Your task to perform on an android device: turn vacation reply on in the gmail app Image 0: 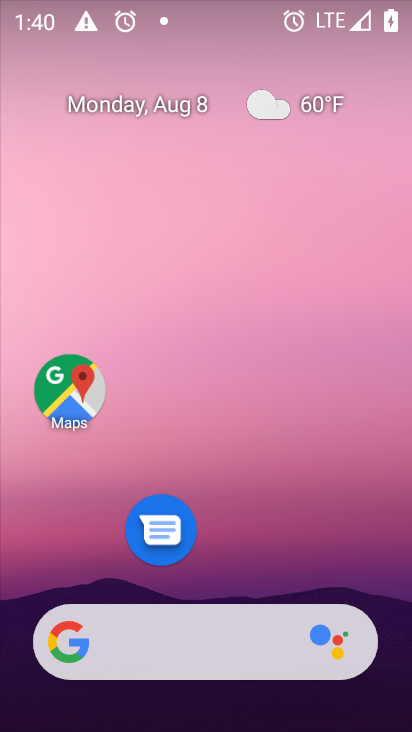
Step 0: drag from (225, 576) to (199, 200)
Your task to perform on an android device: turn vacation reply on in the gmail app Image 1: 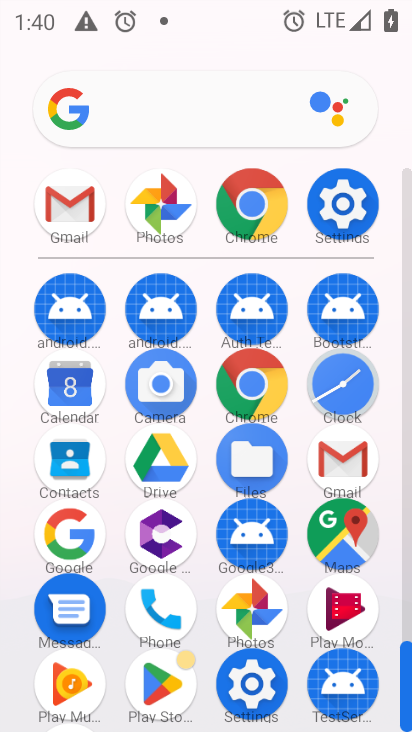
Step 1: click (350, 463)
Your task to perform on an android device: turn vacation reply on in the gmail app Image 2: 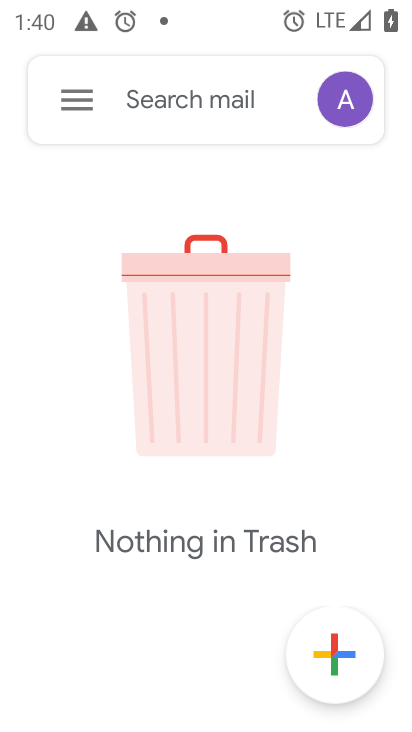
Step 2: click (77, 95)
Your task to perform on an android device: turn vacation reply on in the gmail app Image 3: 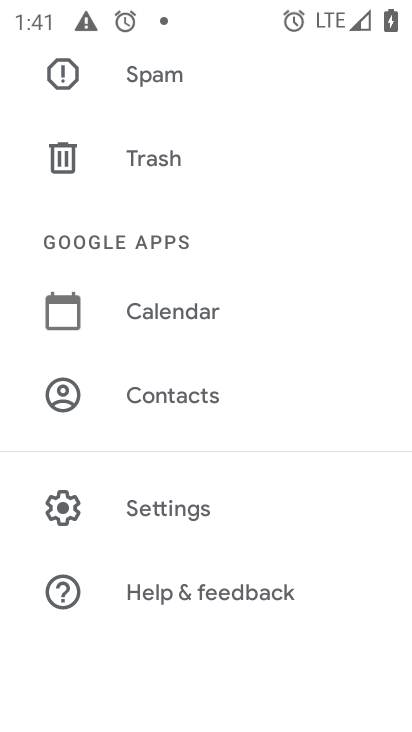
Step 3: click (167, 504)
Your task to perform on an android device: turn vacation reply on in the gmail app Image 4: 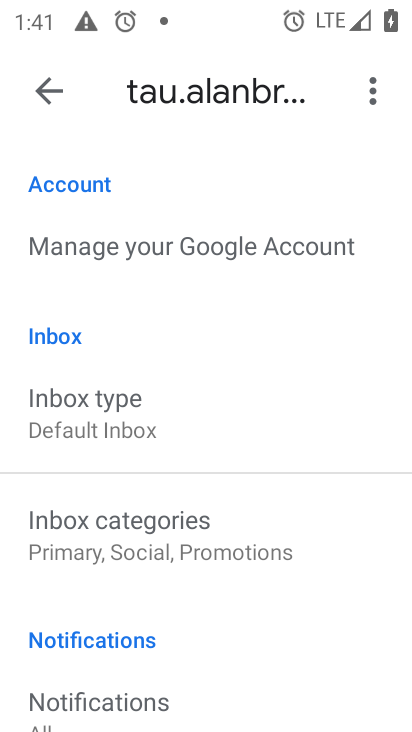
Step 4: drag from (177, 604) to (162, 282)
Your task to perform on an android device: turn vacation reply on in the gmail app Image 5: 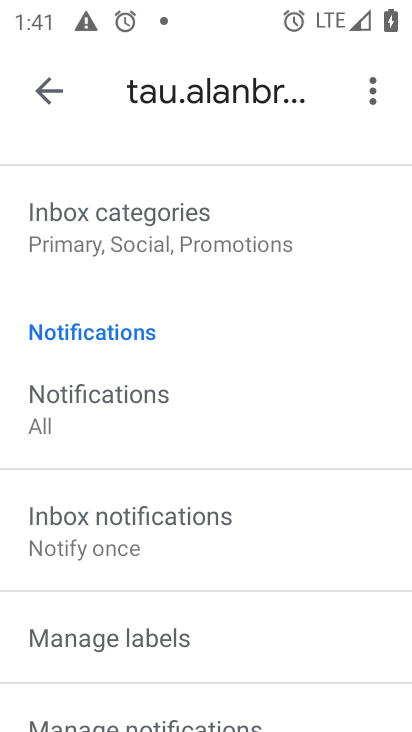
Step 5: drag from (154, 660) to (136, 238)
Your task to perform on an android device: turn vacation reply on in the gmail app Image 6: 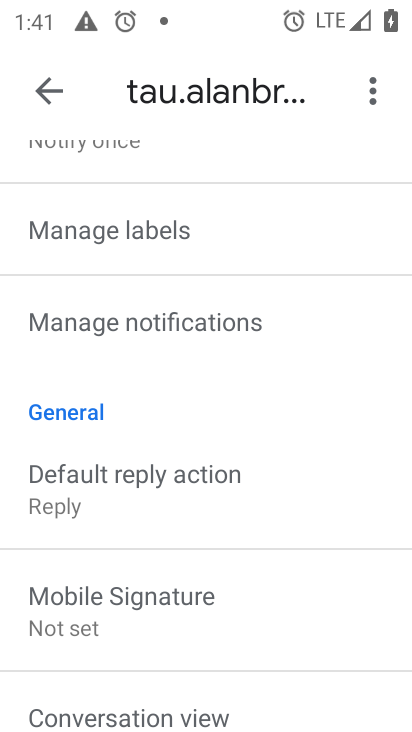
Step 6: drag from (153, 617) to (153, 346)
Your task to perform on an android device: turn vacation reply on in the gmail app Image 7: 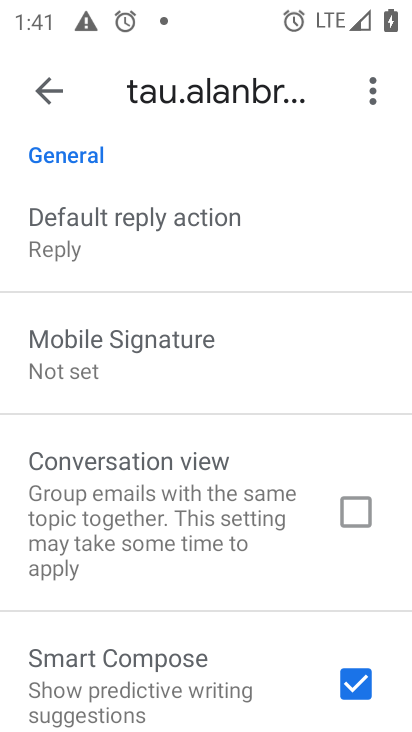
Step 7: drag from (186, 677) to (181, 347)
Your task to perform on an android device: turn vacation reply on in the gmail app Image 8: 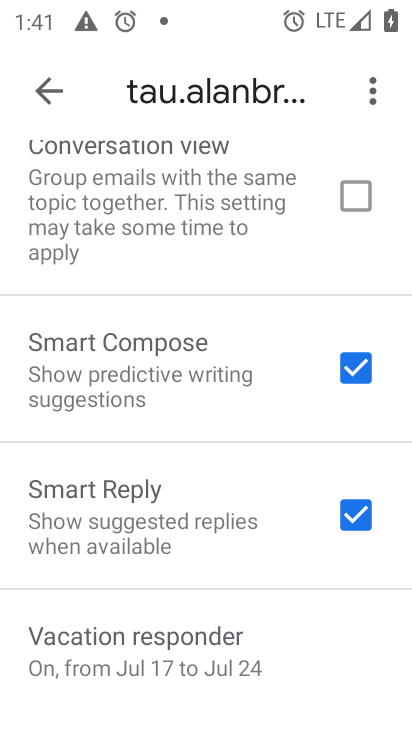
Step 8: click (199, 656)
Your task to perform on an android device: turn vacation reply on in the gmail app Image 9: 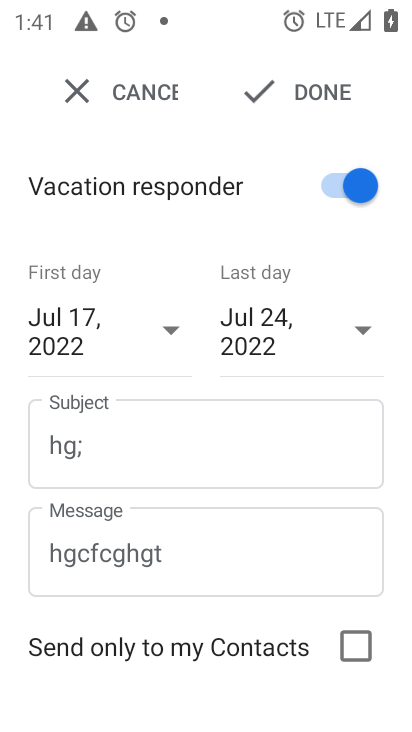
Step 9: task complete